Your task to perform on an android device: show emergency info Image 0: 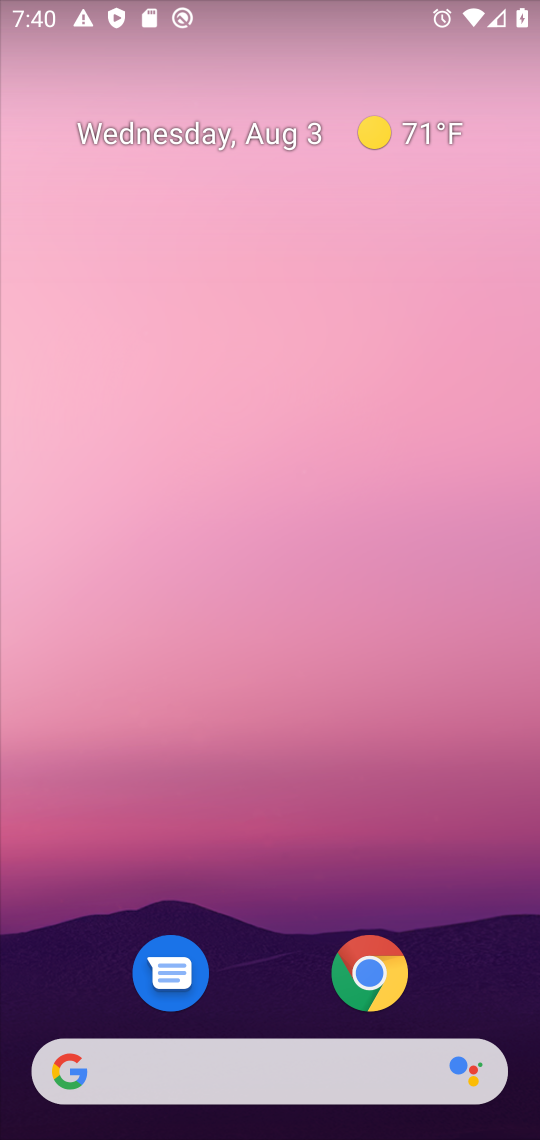
Step 0: drag from (250, 579) to (227, 121)
Your task to perform on an android device: show emergency info Image 1: 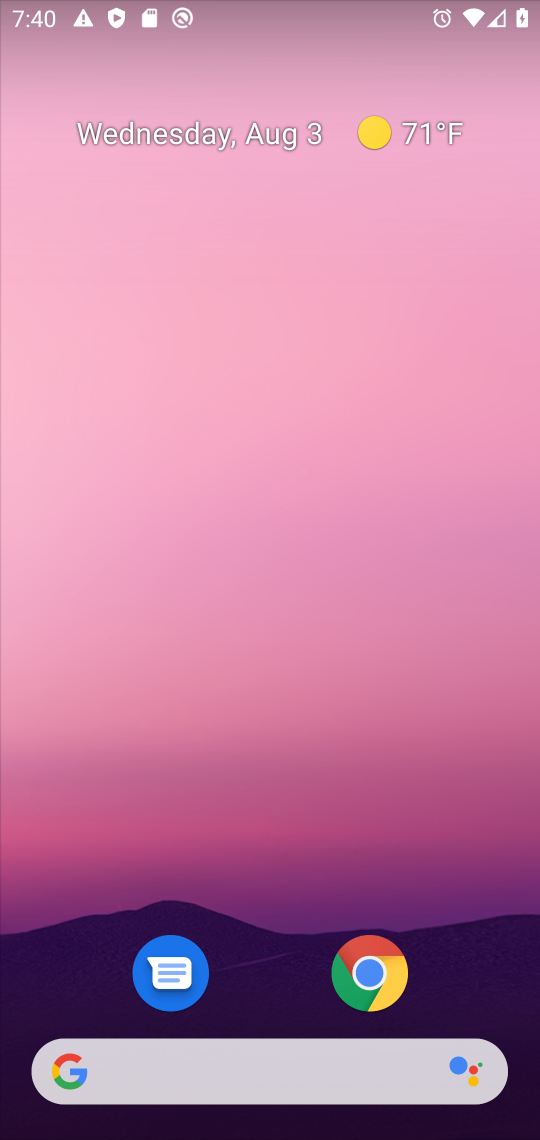
Step 1: click (302, 190)
Your task to perform on an android device: show emergency info Image 2: 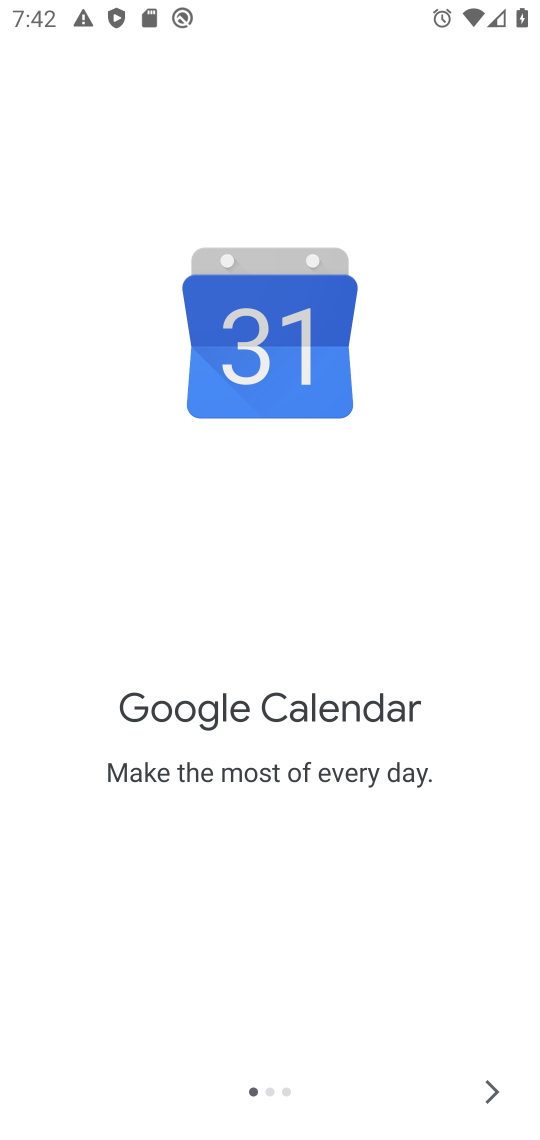
Step 2: press home button
Your task to perform on an android device: show emergency info Image 3: 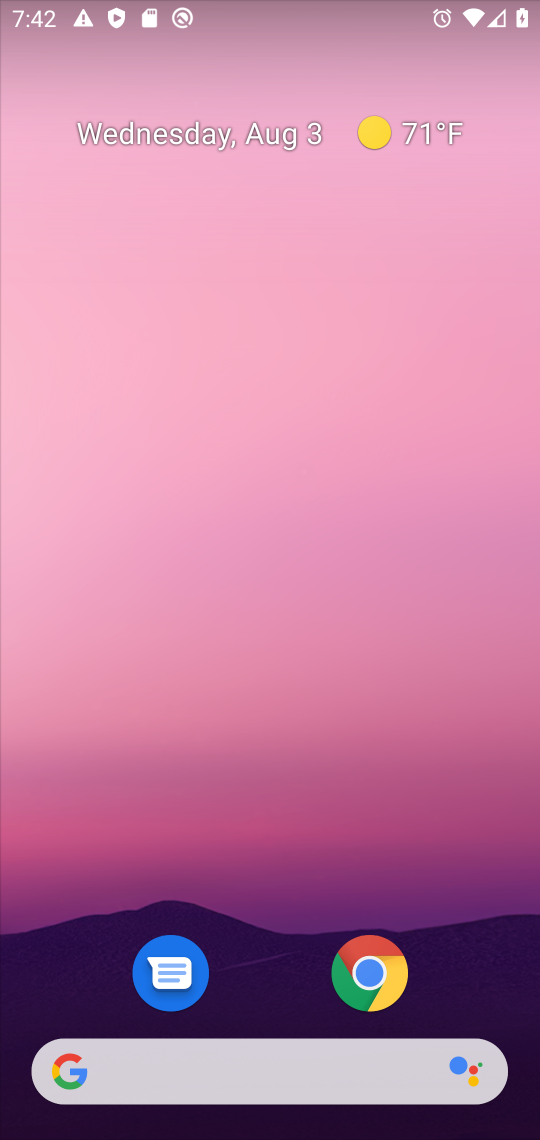
Step 3: drag from (269, 958) to (229, 429)
Your task to perform on an android device: show emergency info Image 4: 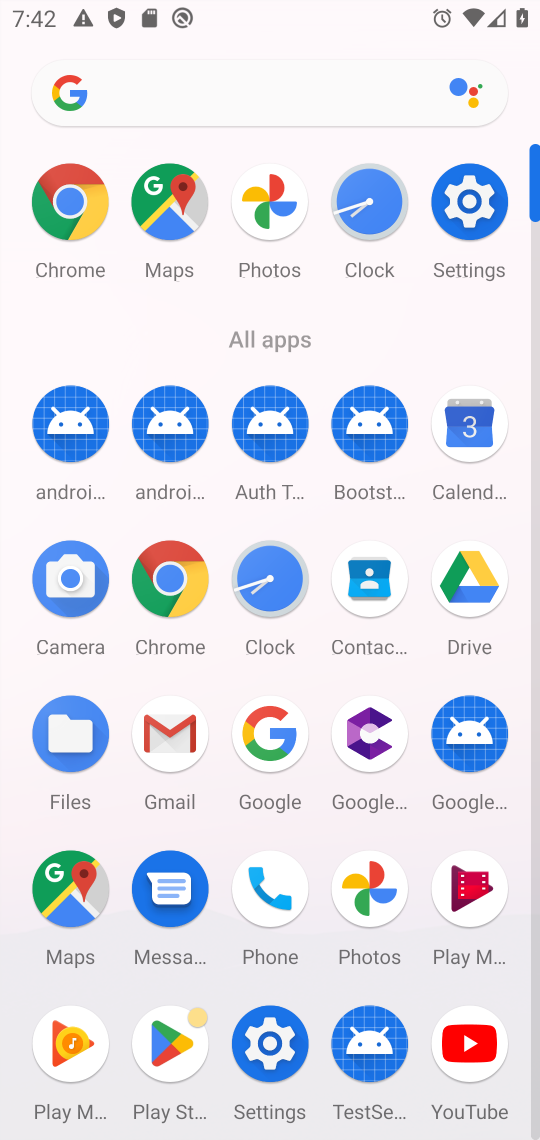
Step 4: click (468, 217)
Your task to perform on an android device: show emergency info Image 5: 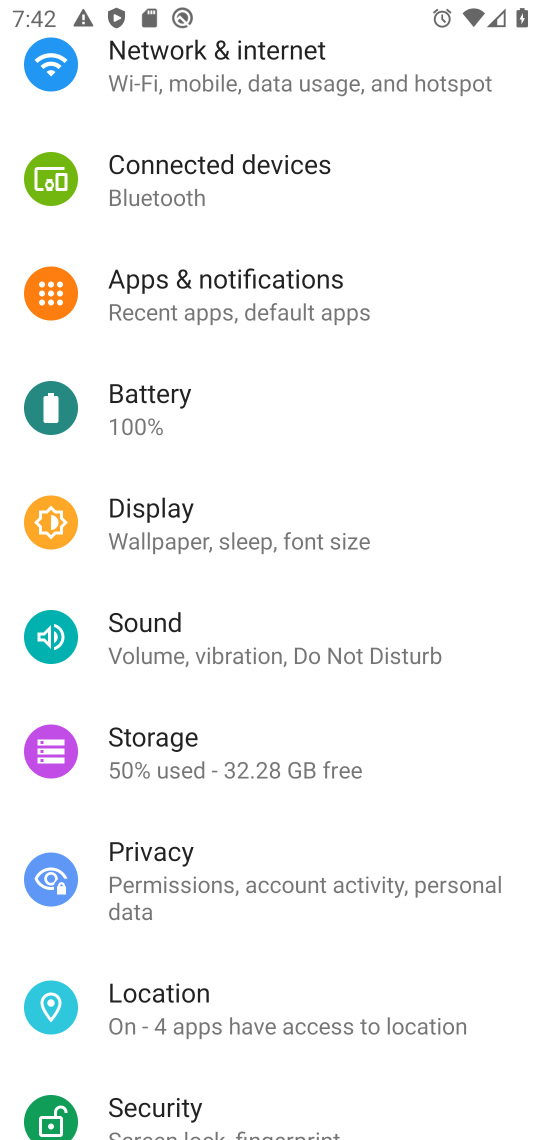
Step 5: click (234, 1079)
Your task to perform on an android device: show emergency info Image 6: 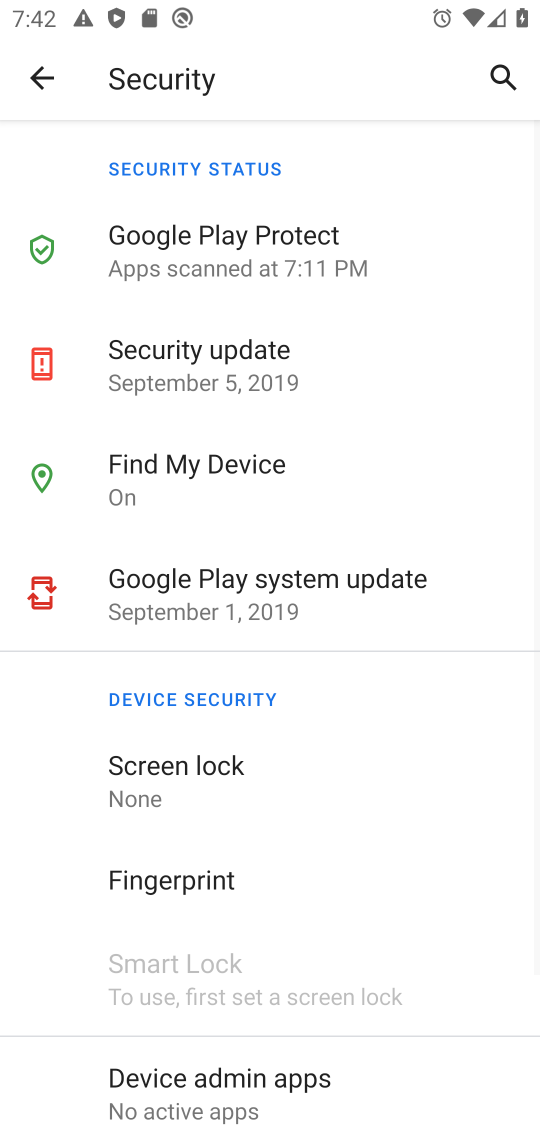
Step 6: click (35, 87)
Your task to perform on an android device: show emergency info Image 7: 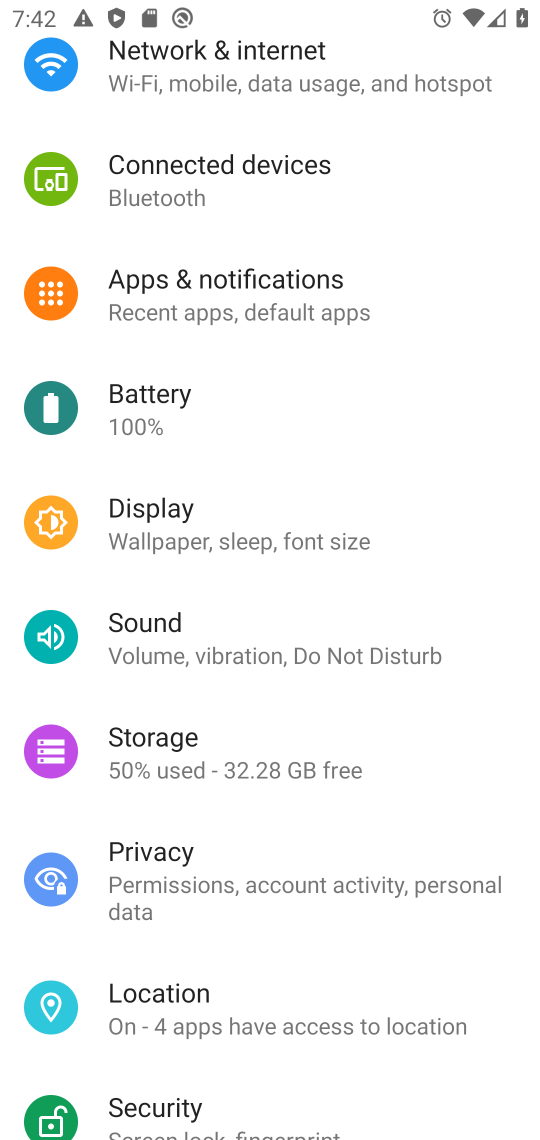
Step 7: drag from (173, 893) to (198, 207)
Your task to perform on an android device: show emergency info Image 8: 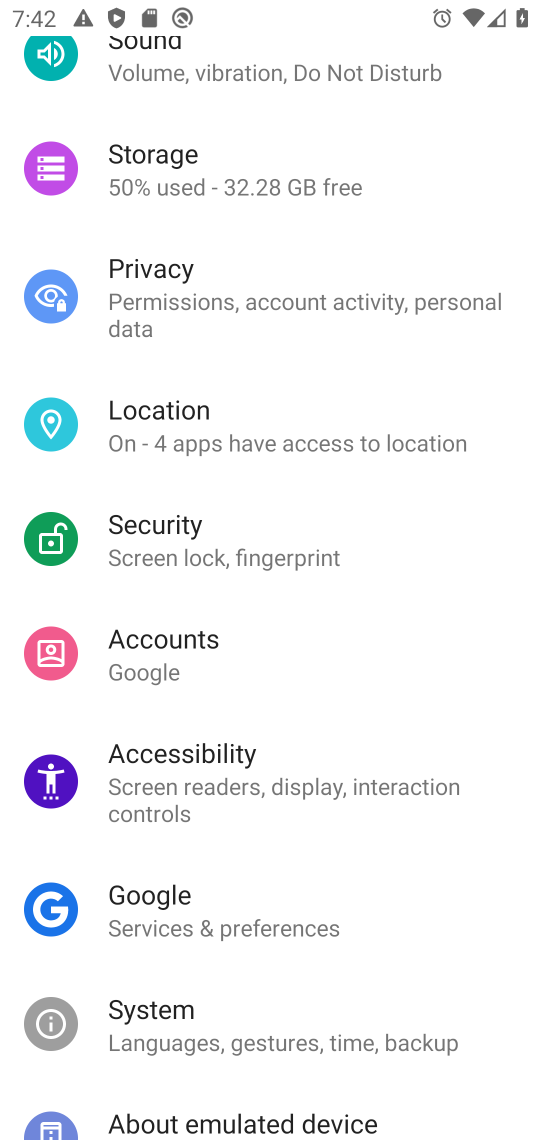
Step 8: drag from (168, 1006) to (192, 470)
Your task to perform on an android device: show emergency info Image 9: 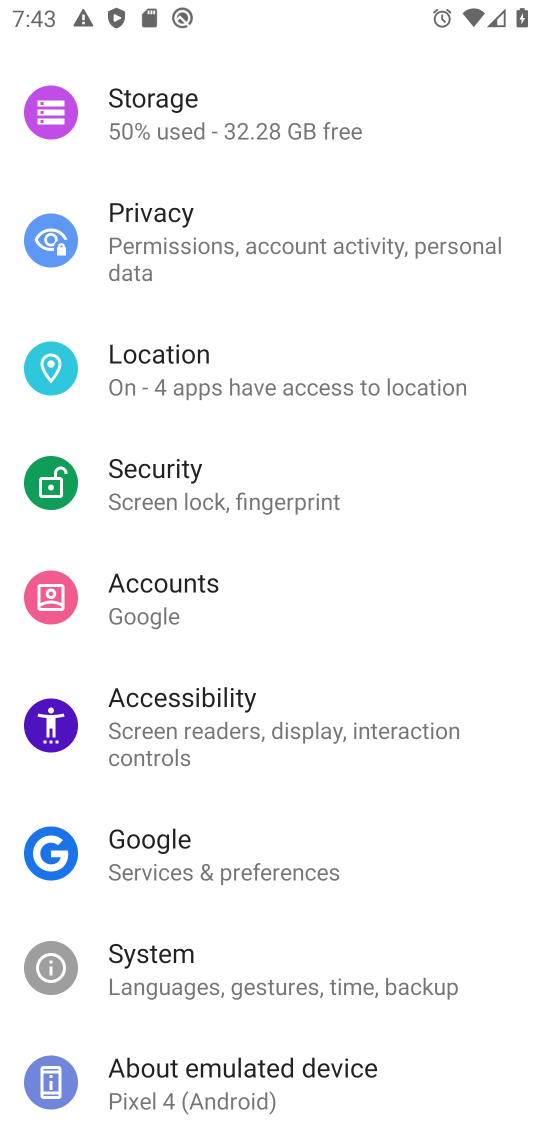
Step 9: click (181, 1106)
Your task to perform on an android device: show emergency info Image 10: 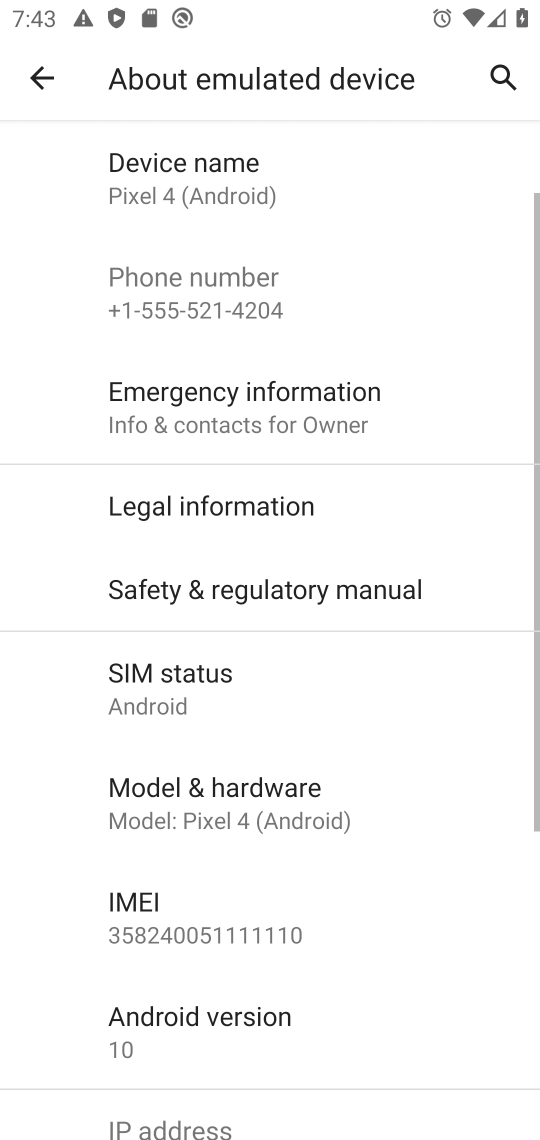
Step 10: click (205, 377)
Your task to perform on an android device: show emergency info Image 11: 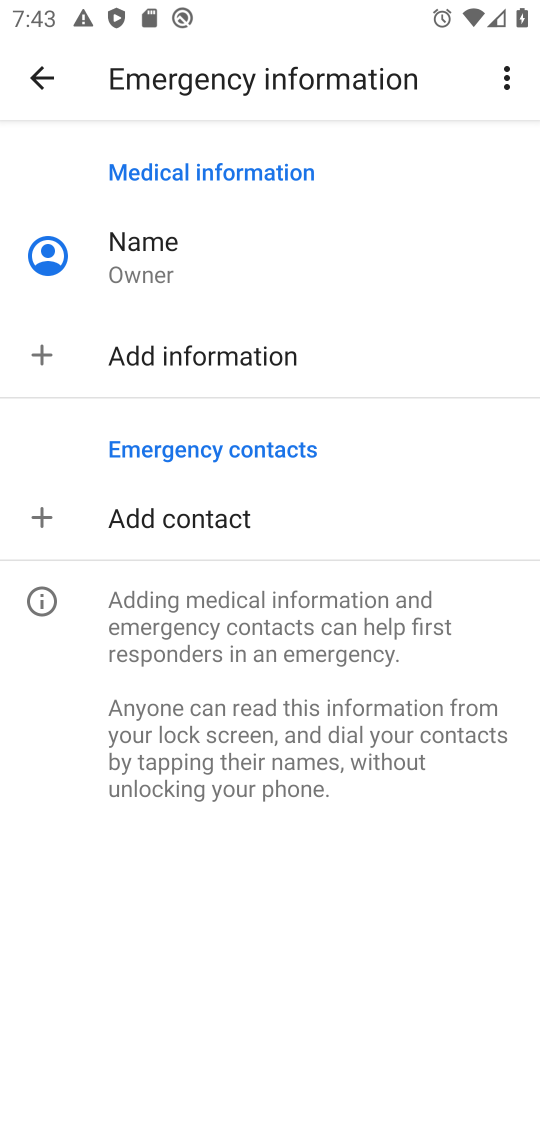
Step 11: task complete